Your task to perform on an android device: Open wifi settings Image 0: 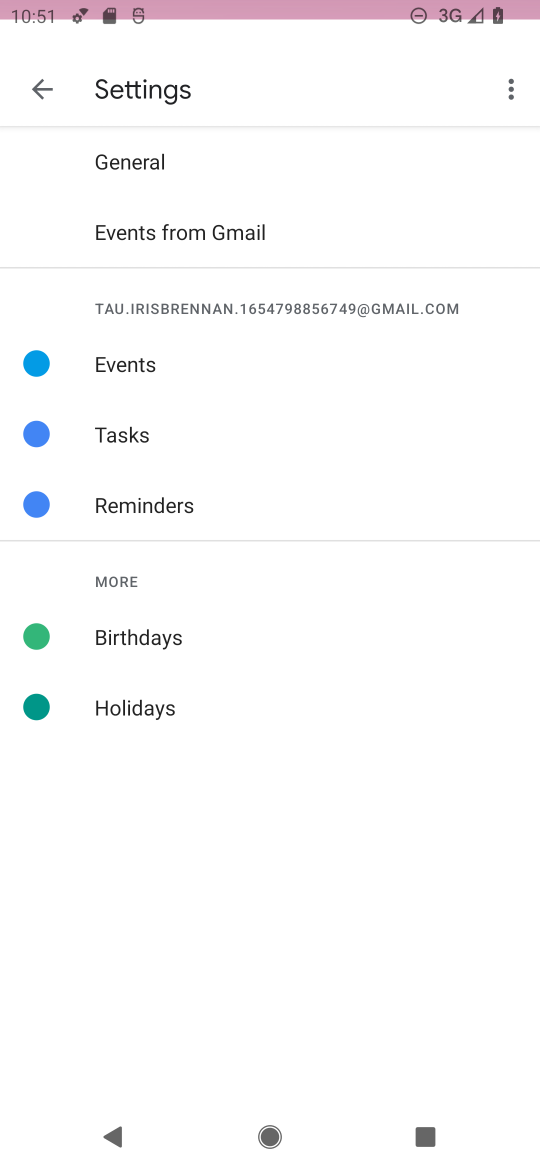
Step 0: press home button
Your task to perform on an android device: Open wifi settings Image 1: 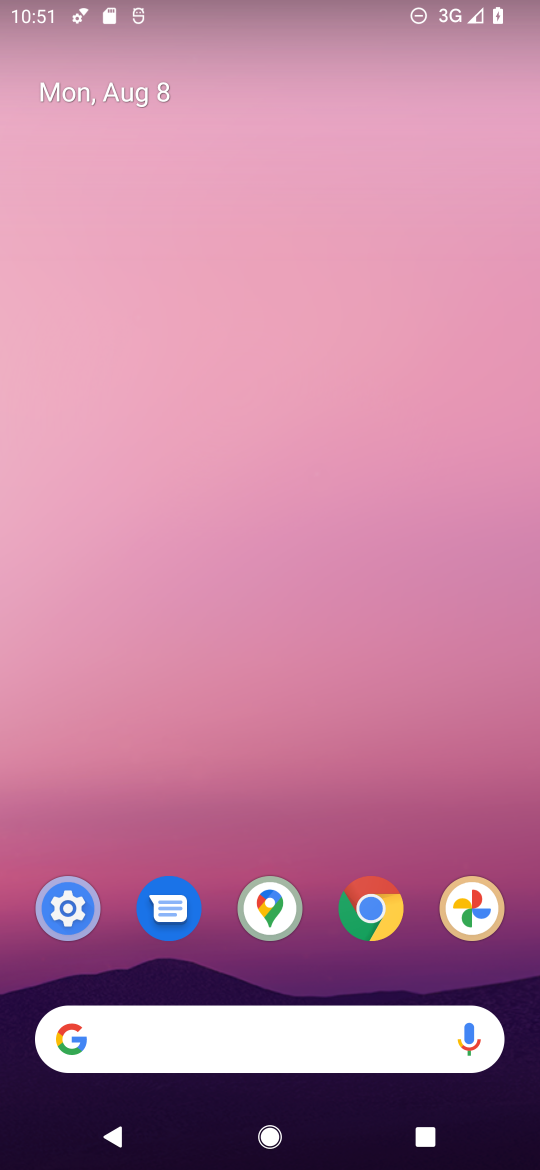
Step 1: drag from (318, 966) to (333, 158)
Your task to perform on an android device: Open wifi settings Image 2: 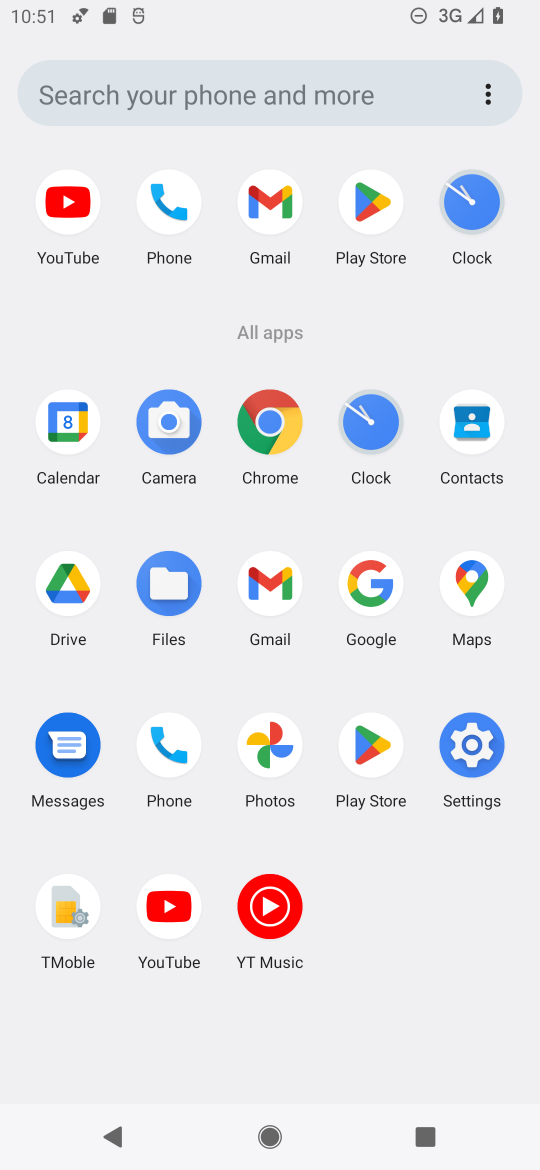
Step 2: click (467, 739)
Your task to perform on an android device: Open wifi settings Image 3: 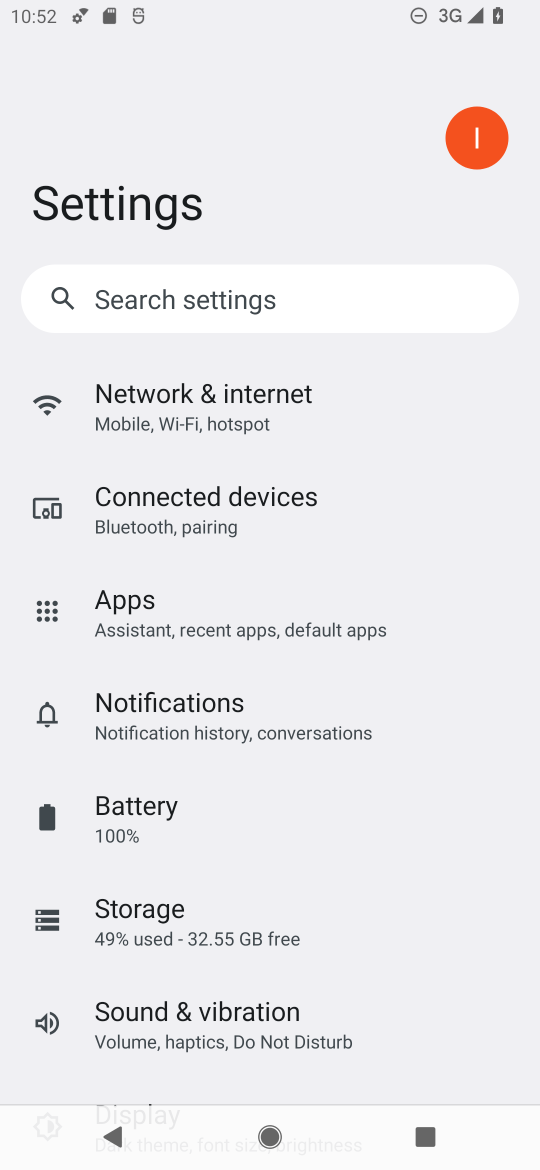
Step 3: click (191, 394)
Your task to perform on an android device: Open wifi settings Image 4: 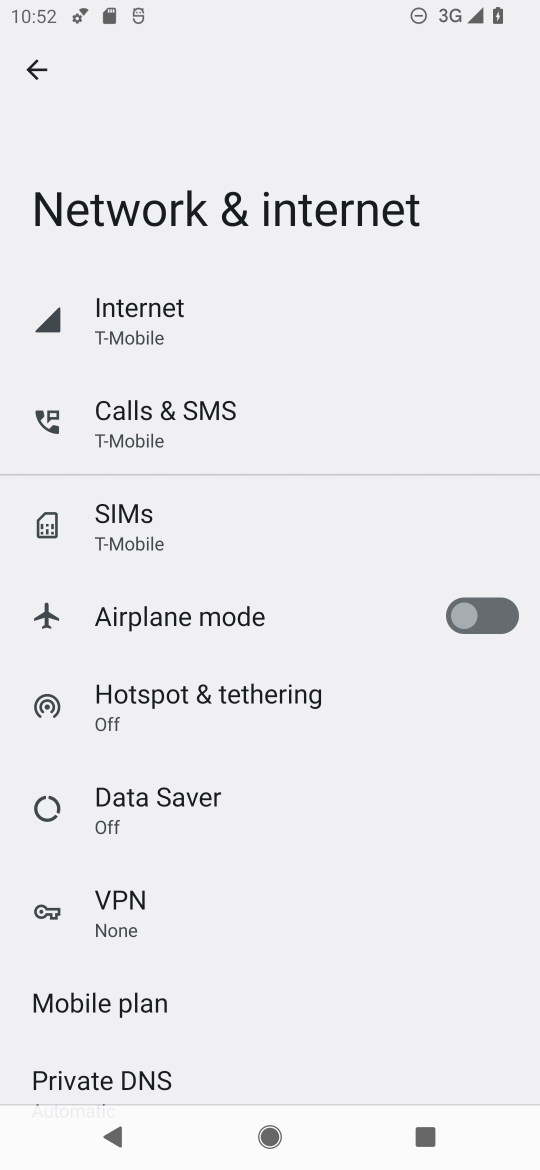
Step 4: click (177, 304)
Your task to perform on an android device: Open wifi settings Image 5: 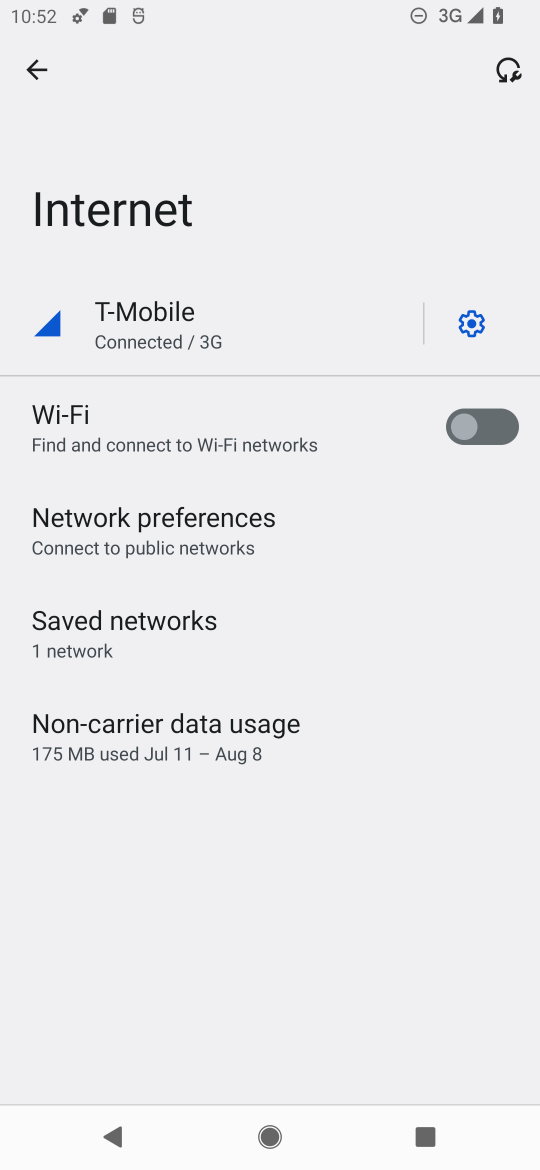
Step 5: click (479, 419)
Your task to perform on an android device: Open wifi settings Image 6: 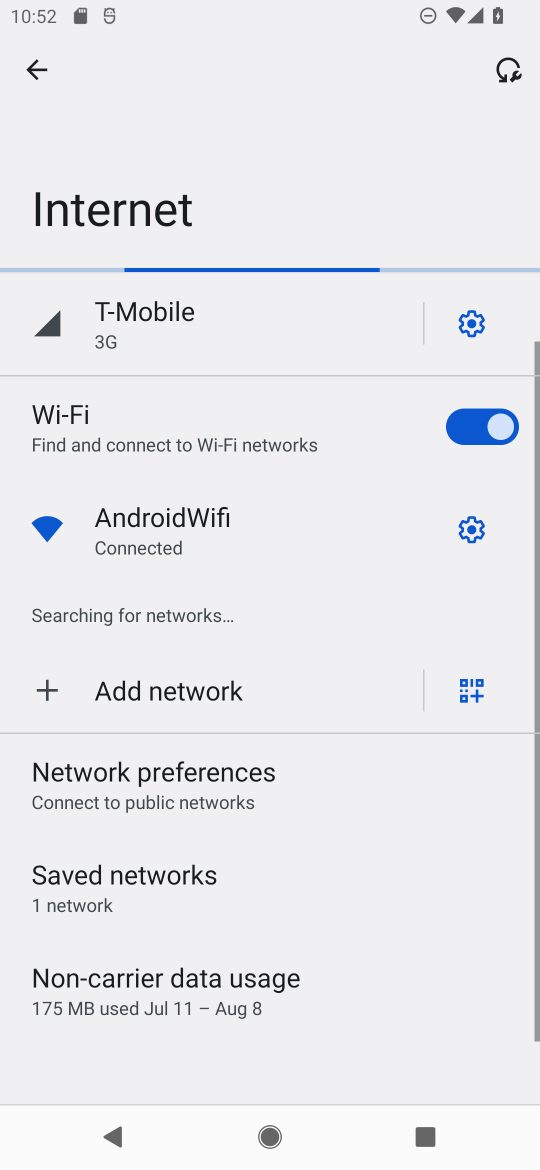
Step 6: task complete